Your task to perform on an android device: turn on sleep mode Image 0: 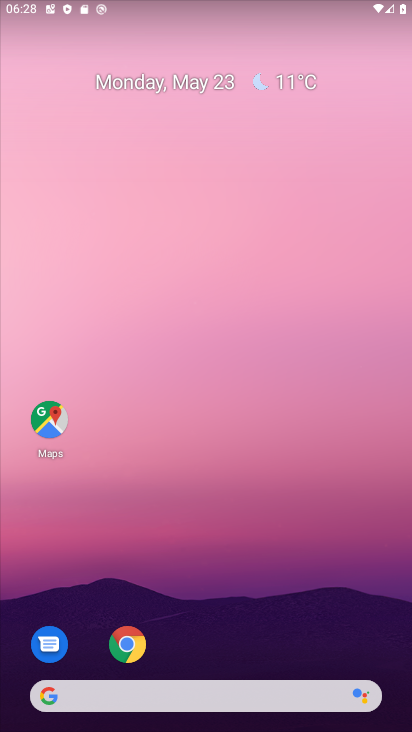
Step 0: drag from (223, 660) to (204, 302)
Your task to perform on an android device: turn on sleep mode Image 1: 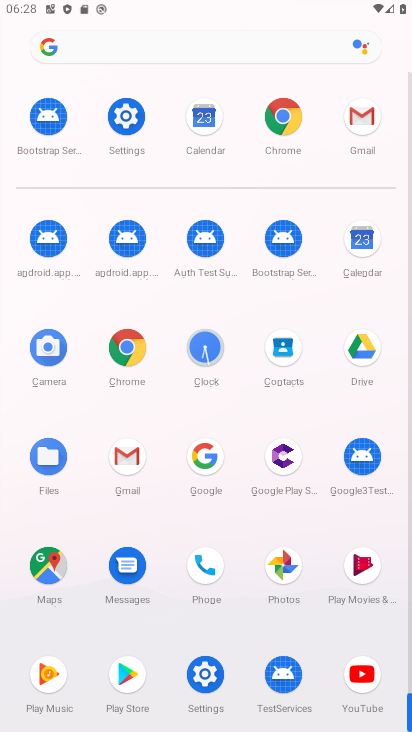
Step 1: click (202, 674)
Your task to perform on an android device: turn on sleep mode Image 2: 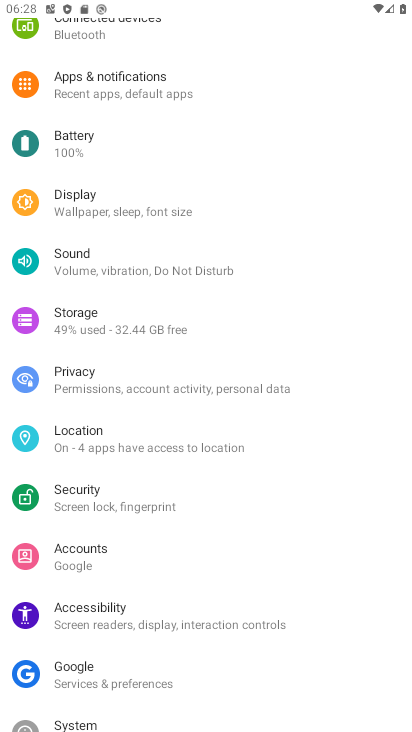
Step 2: task complete